Your task to perform on an android device: Go to settings Image 0: 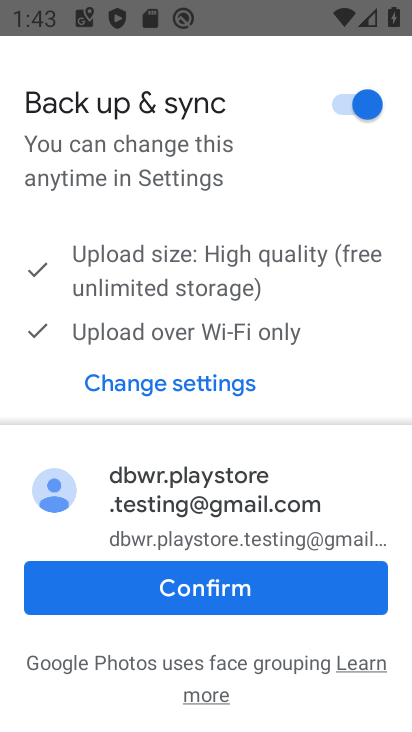
Step 0: press back button
Your task to perform on an android device: Go to settings Image 1: 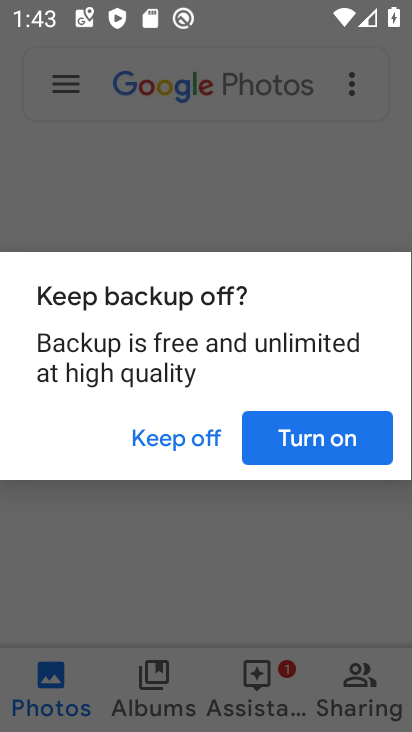
Step 1: press home button
Your task to perform on an android device: Go to settings Image 2: 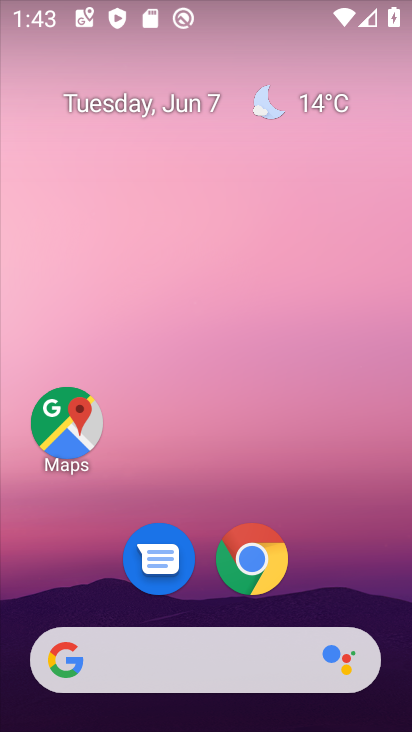
Step 2: drag from (318, 474) to (241, 34)
Your task to perform on an android device: Go to settings Image 3: 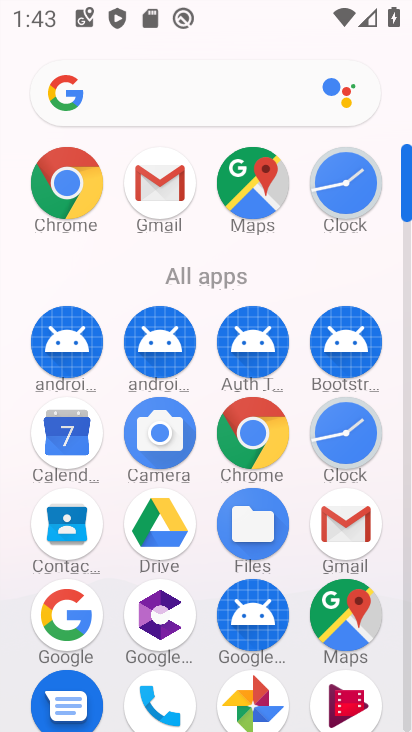
Step 3: drag from (7, 541) to (10, 275)
Your task to perform on an android device: Go to settings Image 4: 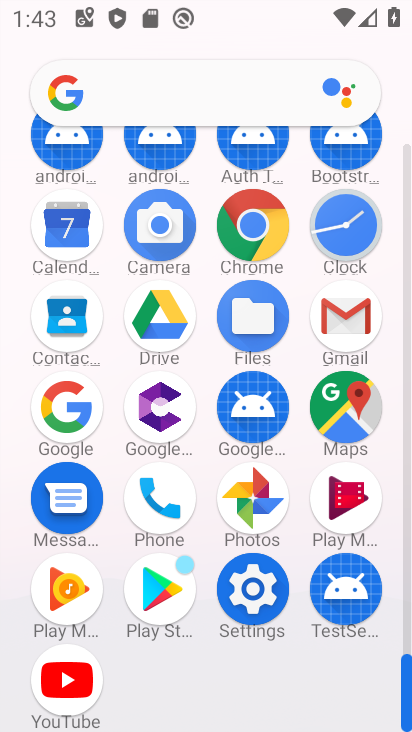
Step 4: click (252, 585)
Your task to perform on an android device: Go to settings Image 5: 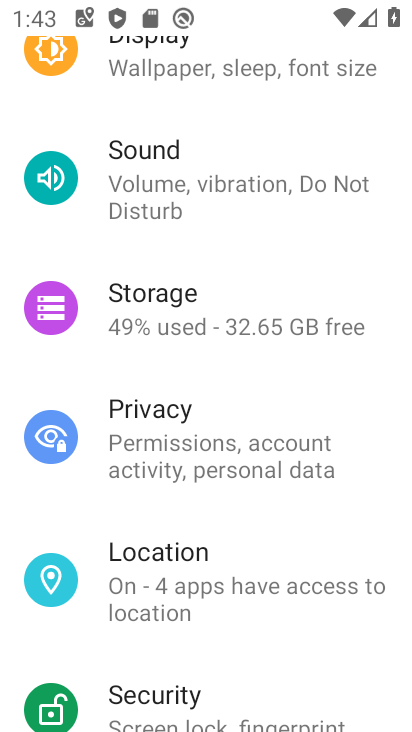
Step 5: task complete